Your task to perform on an android device: Open the calendar and show me this week's events? Image 0: 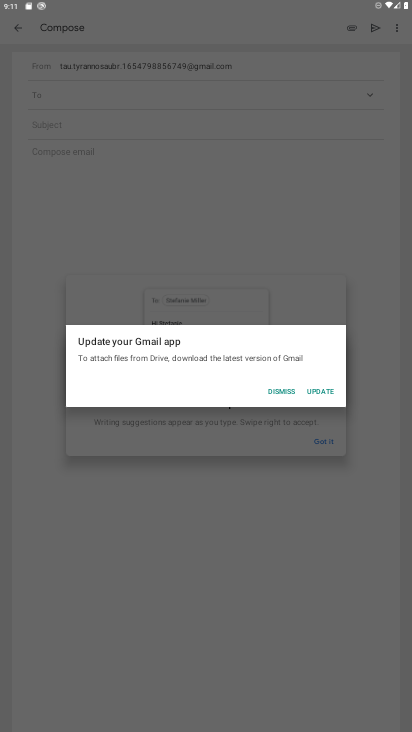
Step 0: press home button
Your task to perform on an android device: Open the calendar and show me this week's events? Image 1: 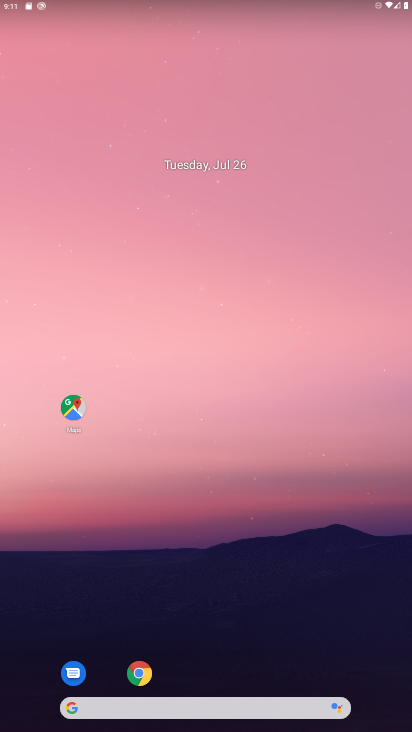
Step 1: drag from (206, 661) to (207, 51)
Your task to perform on an android device: Open the calendar and show me this week's events? Image 2: 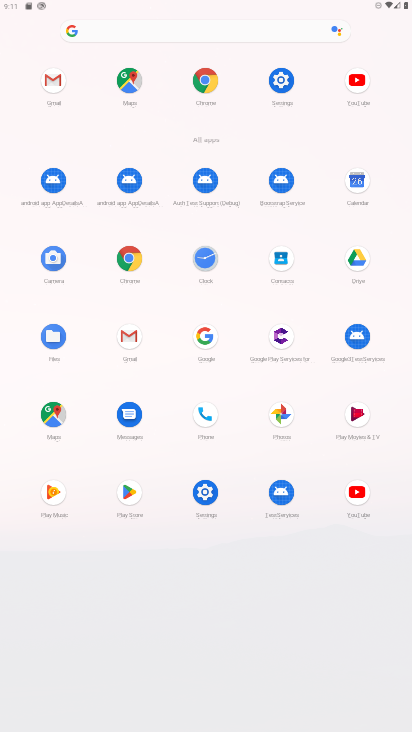
Step 2: click (369, 185)
Your task to perform on an android device: Open the calendar and show me this week's events? Image 3: 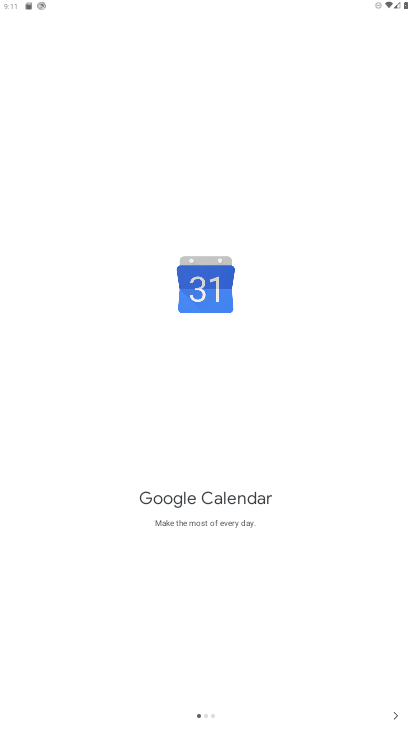
Step 3: click (394, 722)
Your task to perform on an android device: Open the calendar and show me this week's events? Image 4: 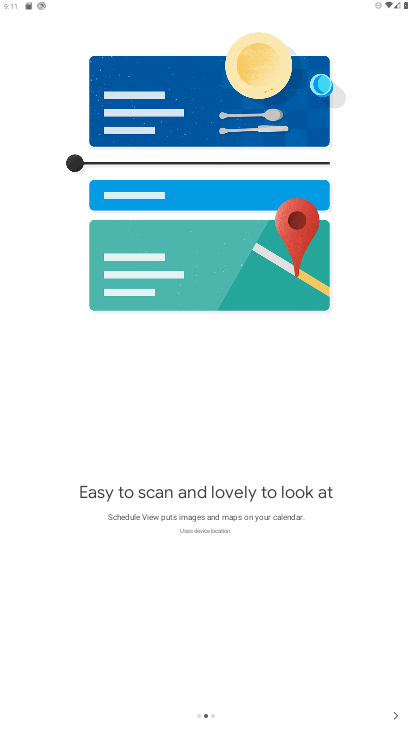
Step 4: click (394, 722)
Your task to perform on an android device: Open the calendar and show me this week's events? Image 5: 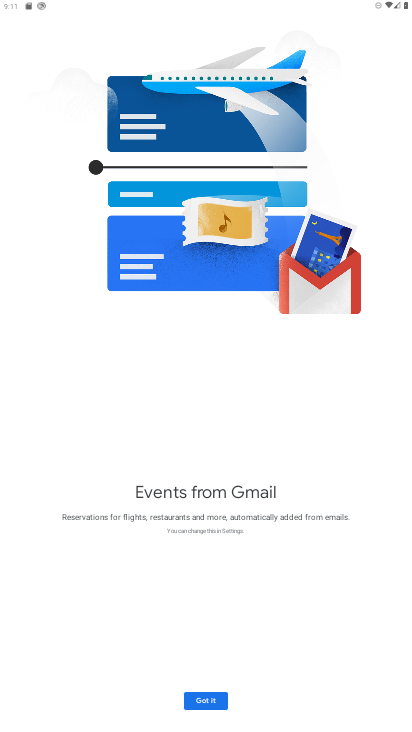
Step 5: click (211, 706)
Your task to perform on an android device: Open the calendar and show me this week's events? Image 6: 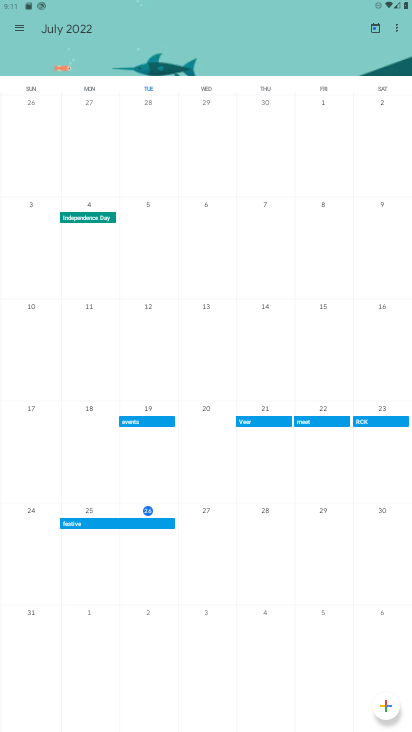
Step 6: click (17, 23)
Your task to perform on an android device: Open the calendar and show me this week's events? Image 7: 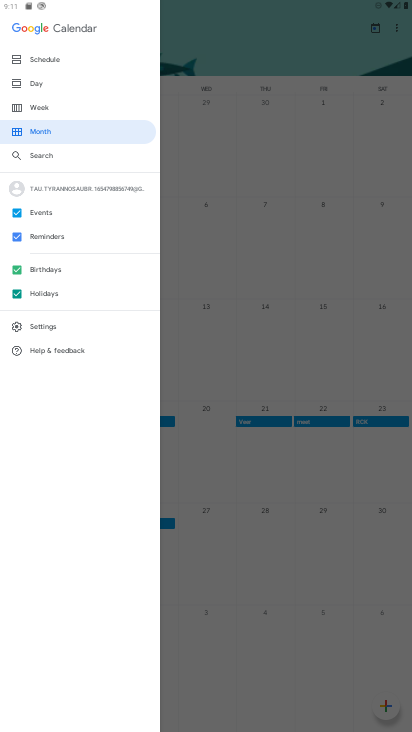
Step 7: click (20, 289)
Your task to perform on an android device: Open the calendar and show me this week's events? Image 8: 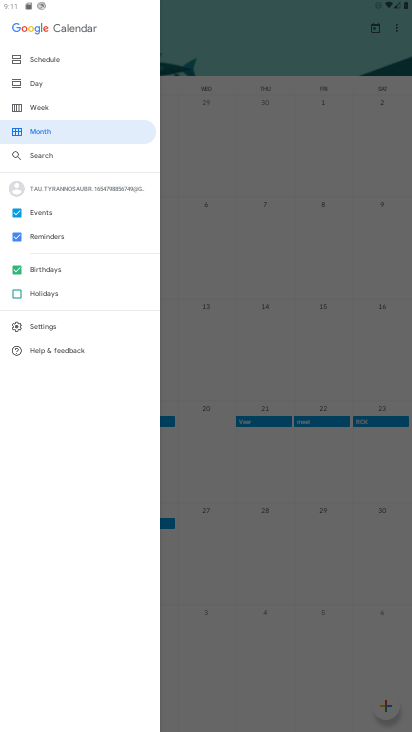
Step 8: click (20, 271)
Your task to perform on an android device: Open the calendar and show me this week's events? Image 9: 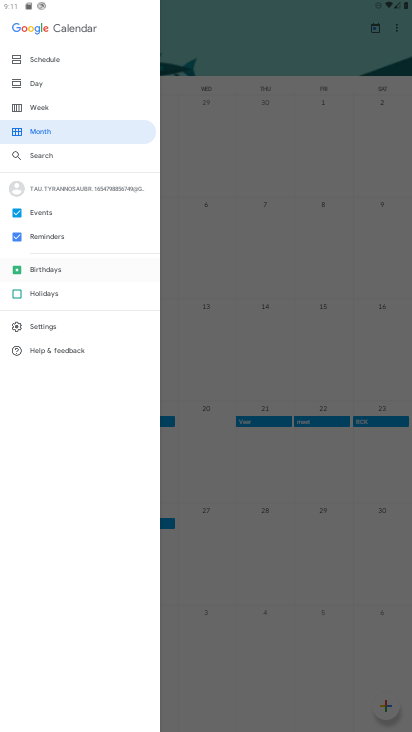
Step 9: click (21, 234)
Your task to perform on an android device: Open the calendar and show me this week's events? Image 10: 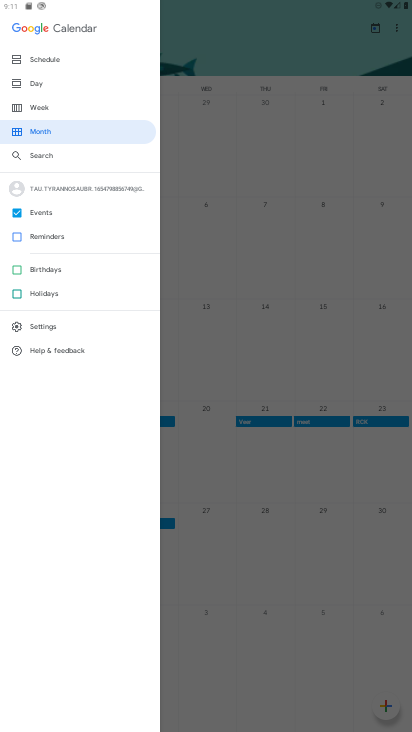
Step 10: click (17, 113)
Your task to perform on an android device: Open the calendar and show me this week's events? Image 11: 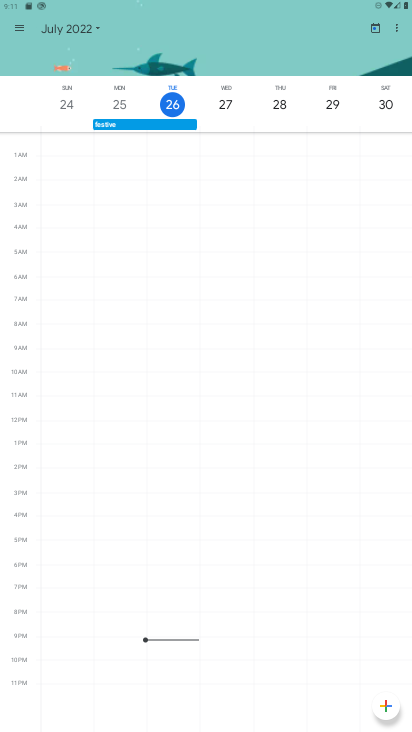
Step 11: click (173, 125)
Your task to perform on an android device: Open the calendar and show me this week's events? Image 12: 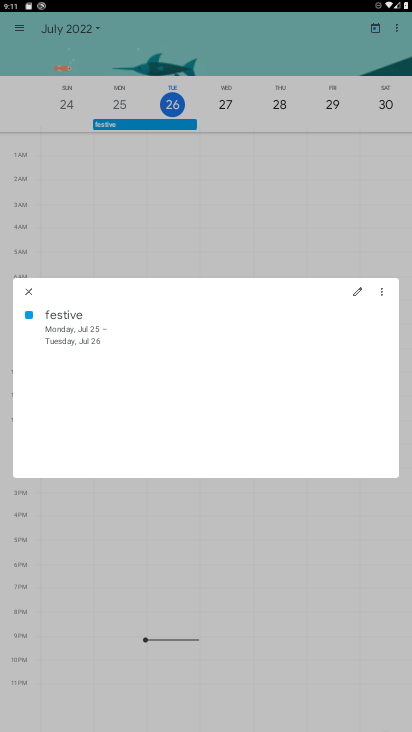
Step 12: click (27, 292)
Your task to perform on an android device: Open the calendar and show me this week's events? Image 13: 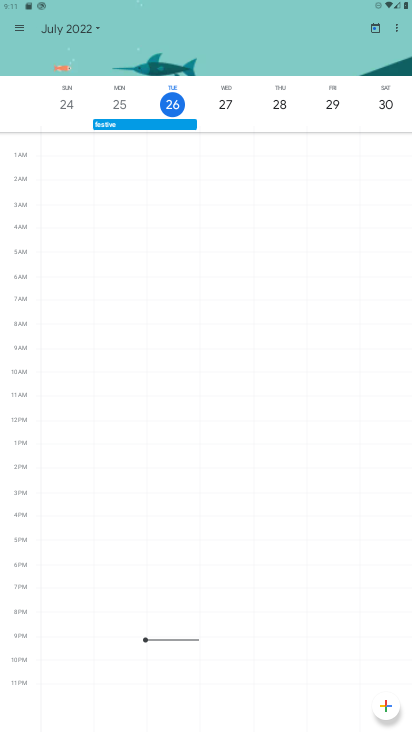
Step 13: task complete